Your task to perform on an android device: open app "Speedtest by Ookla" Image 0: 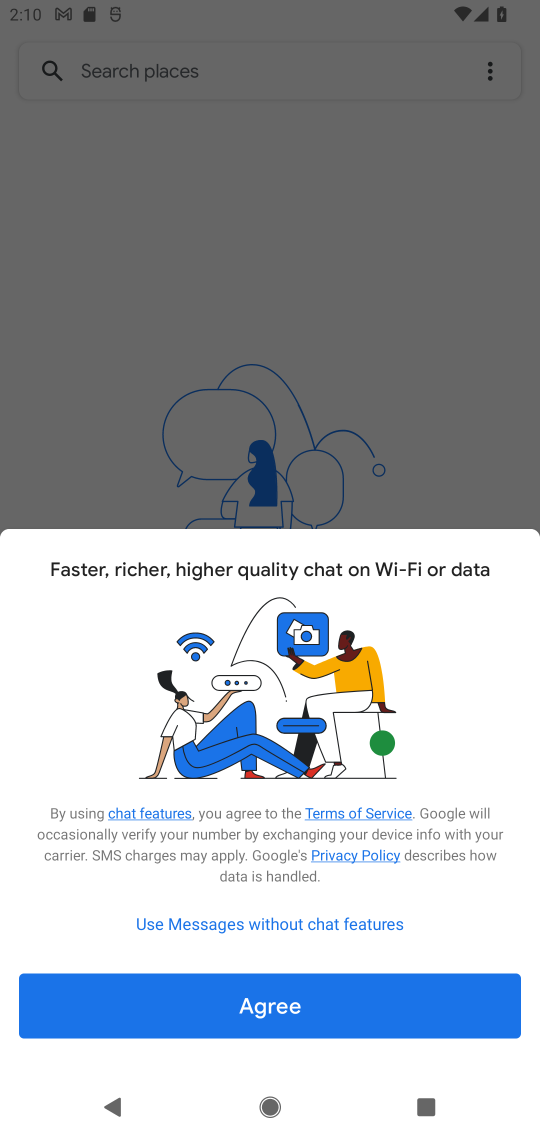
Step 0: press home button
Your task to perform on an android device: open app "Speedtest by Ookla" Image 1: 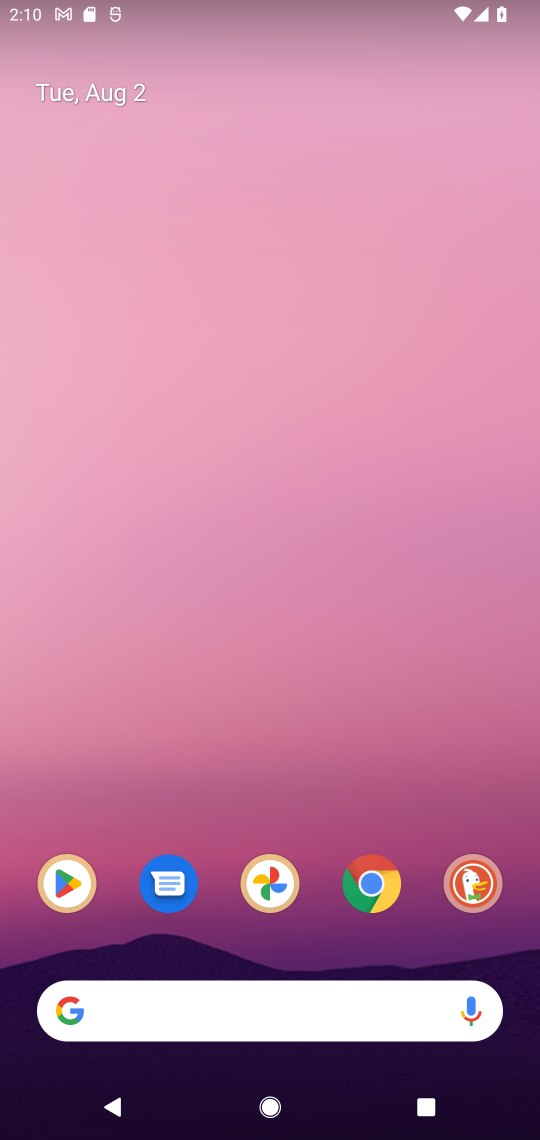
Step 1: click (86, 869)
Your task to perform on an android device: open app "Speedtest by Ookla" Image 2: 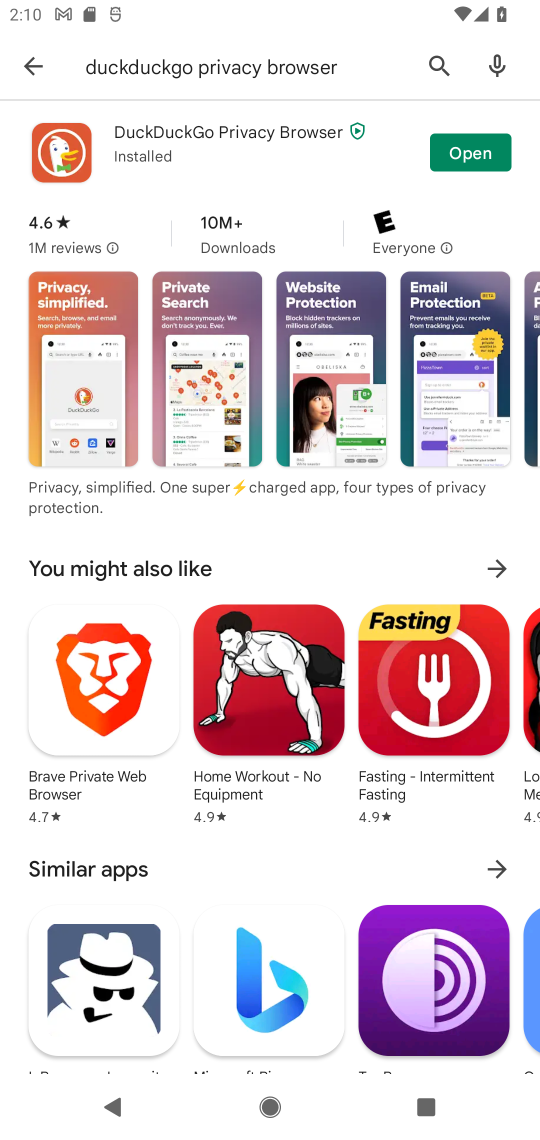
Step 2: click (431, 56)
Your task to perform on an android device: open app "Speedtest by Ookla" Image 3: 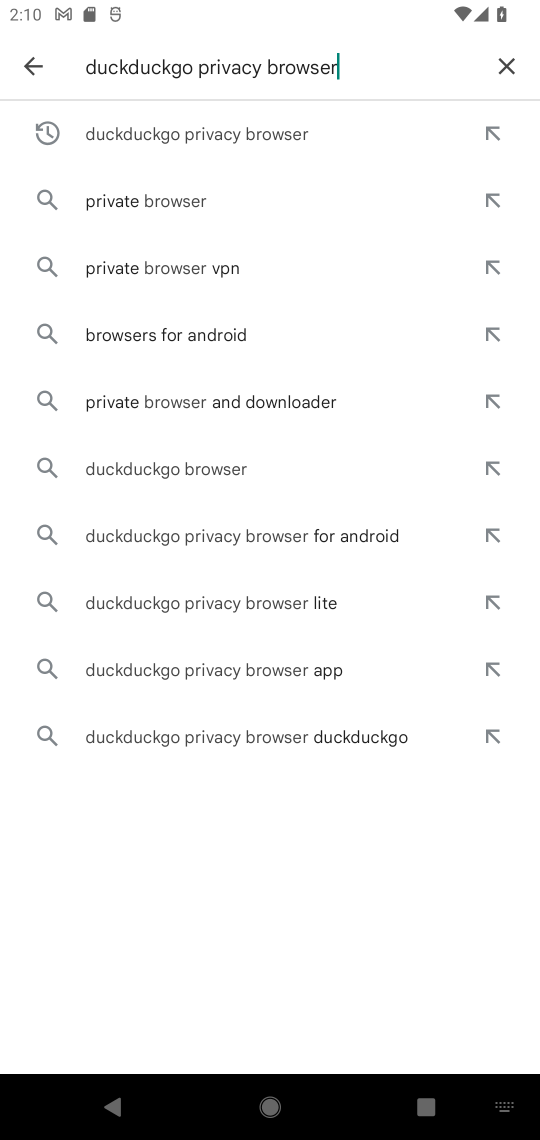
Step 3: click (514, 63)
Your task to perform on an android device: open app "Speedtest by Ookla" Image 4: 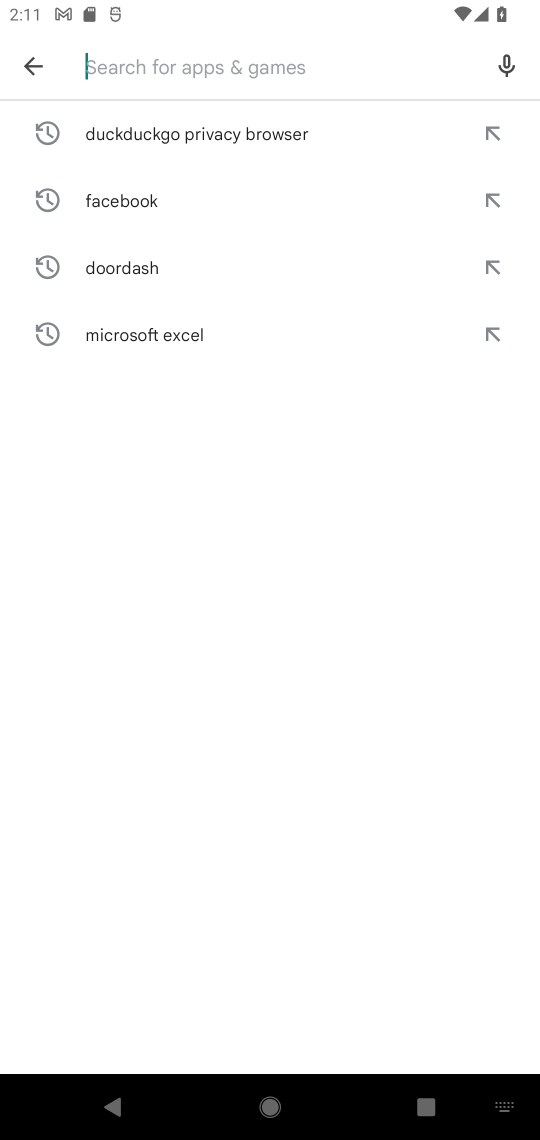
Step 4: type "Speedtest by Ookla"
Your task to perform on an android device: open app "Speedtest by Ookla" Image 5: 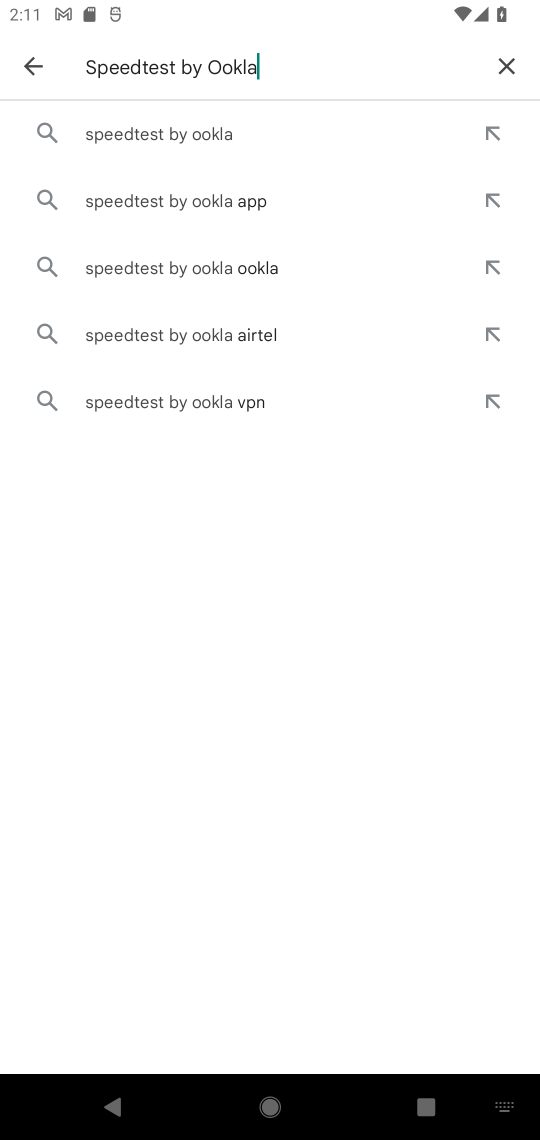
Step 5: click (146, 135)
Your task to perform on an android device: open app "Speedtest by Ookla" Image 6: 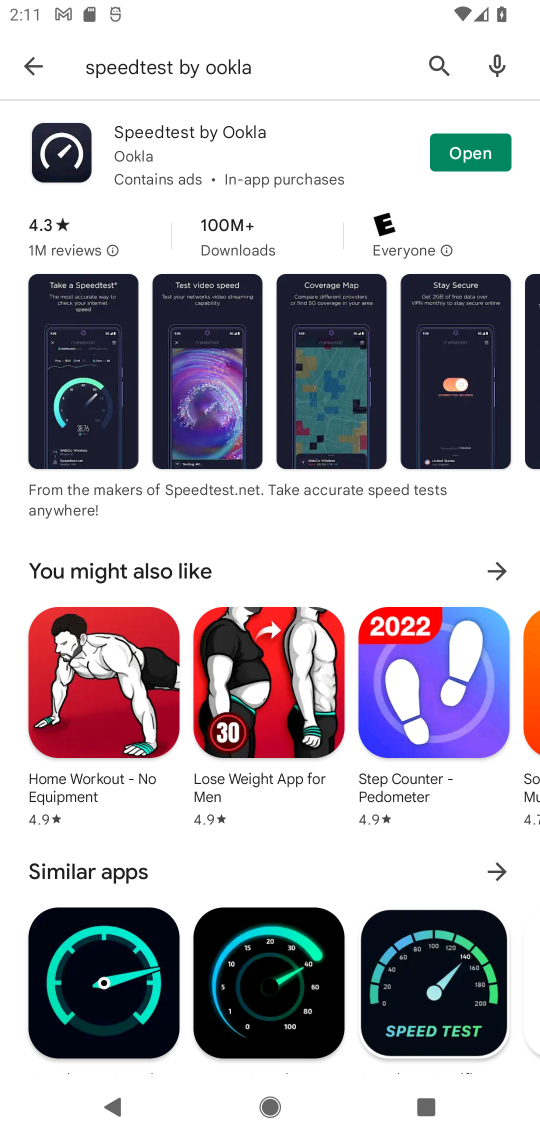
Step 6: click (460, 156)
Your task to perform on an android device: open app "Speedtest by Ookla" Image 7: 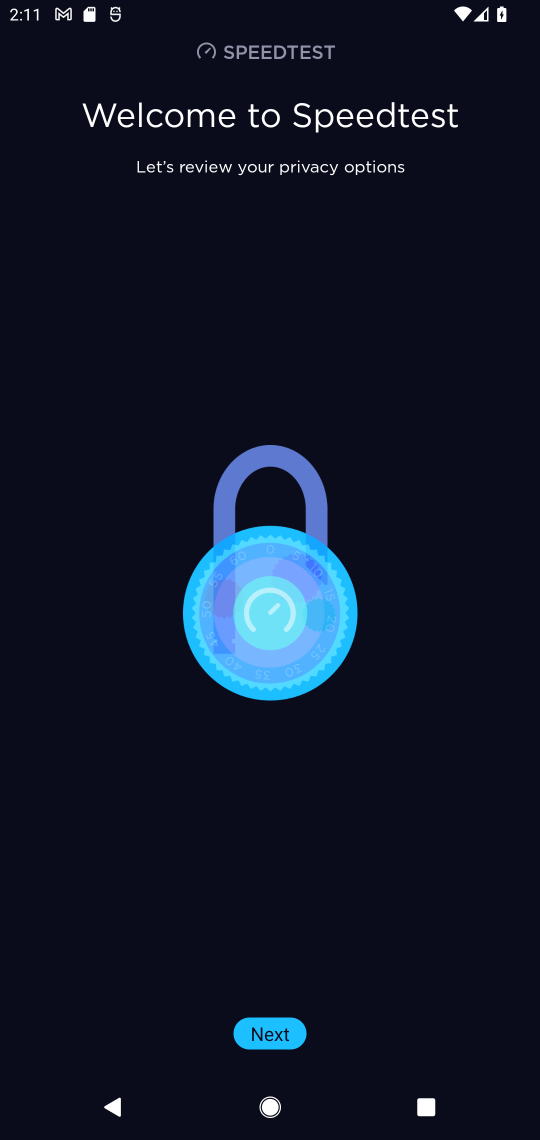
Step 7: task complete